Your task to perform on an android device: Open Google Chrome and open the bookmarks view Image 0: 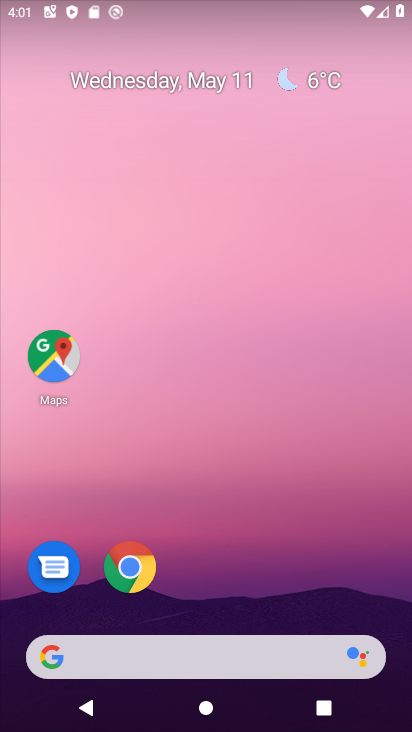
Step 0: drag from (289, 508) to (289, 209)
Your task to perform on an android device: Open Google Chrome and open the bookmarks view Image 1: 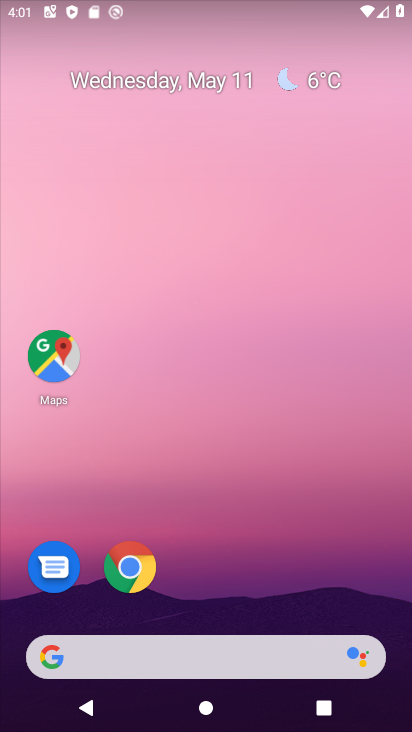
Step 1: drag from (258, 608) to (285, 172)
Your task to perform on an android device: Open Google Chrome and open the bookmarks view Image 2: 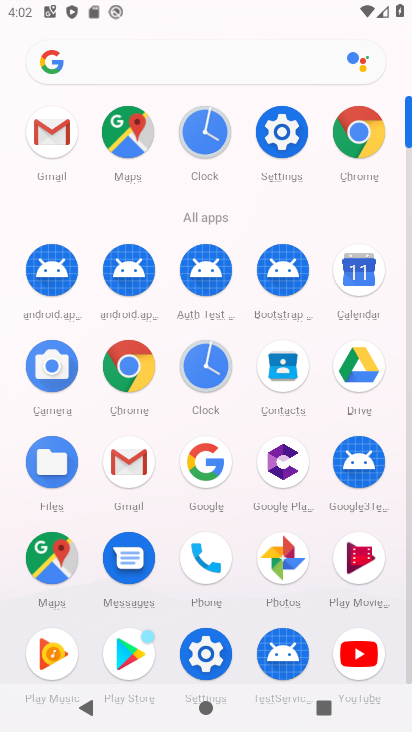
Step 2: click (359, 126)
Your task to perform on an android device: Open Google Chrome and open the bookmarks view Image 3: 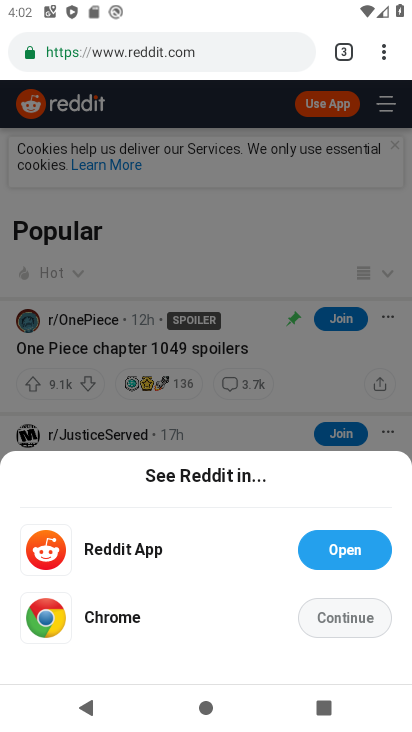
Step 3: click (344, 177)
Your task to perform on an android device: Open Google Chrome and open the bookmarks view Image 4: 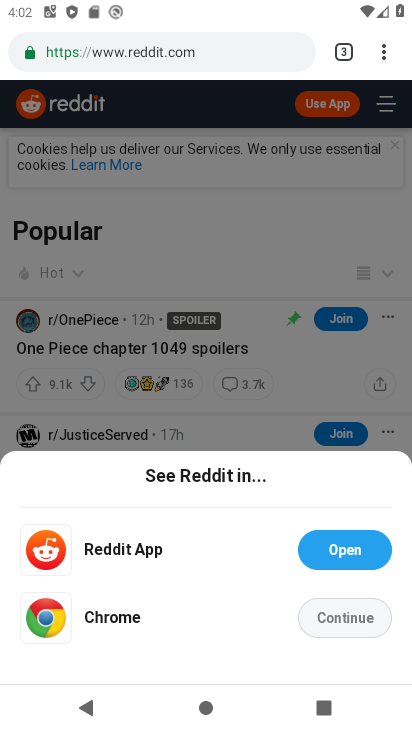
Step 4: press back button
Your task to perform on an android device: Open Google Chrome and open the bookmarks view Image 5: 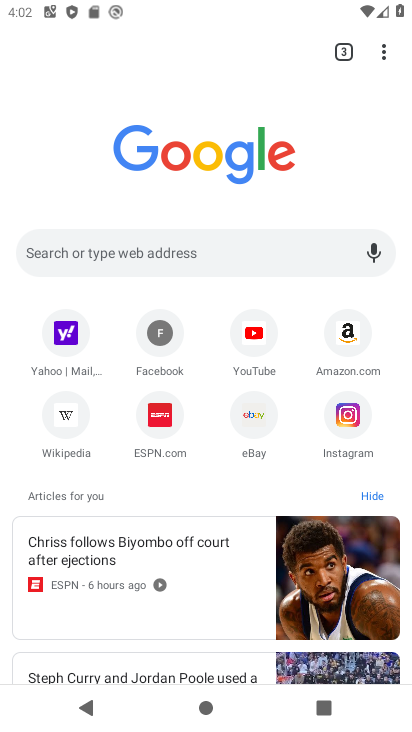
Step 5: click (375, 48)
Your task to perform on an android device: Open Google Chrome and open the bookmarks view Image 6: 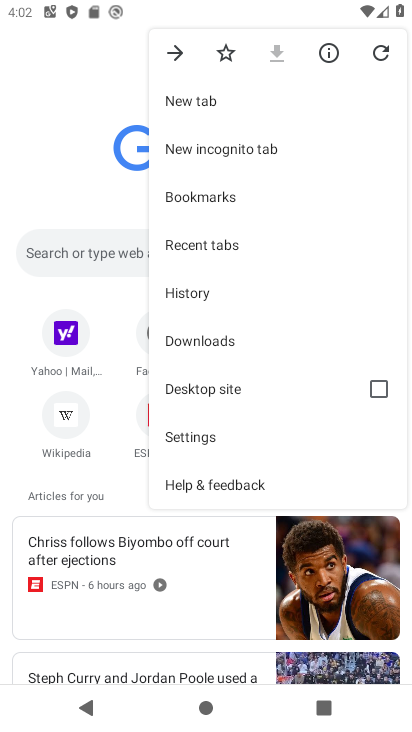
Step 6: click (234, 196)
Your task to perform on an android device: Open Google Chrome and open the bookmarks view Image 7: 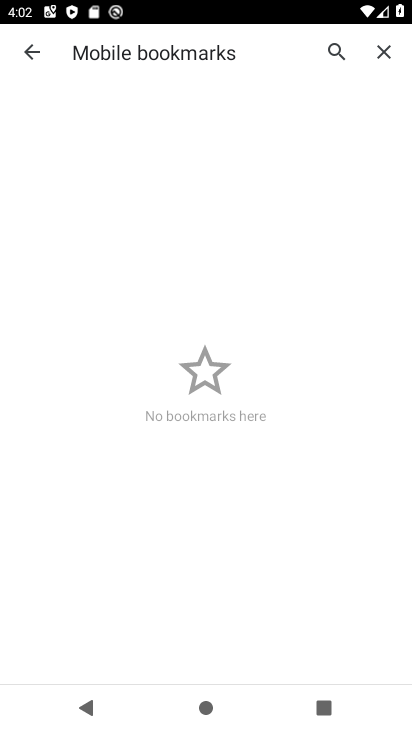
Step 7: task complete